Your task to perform on an android device: find photos in the google photos app Image 0: 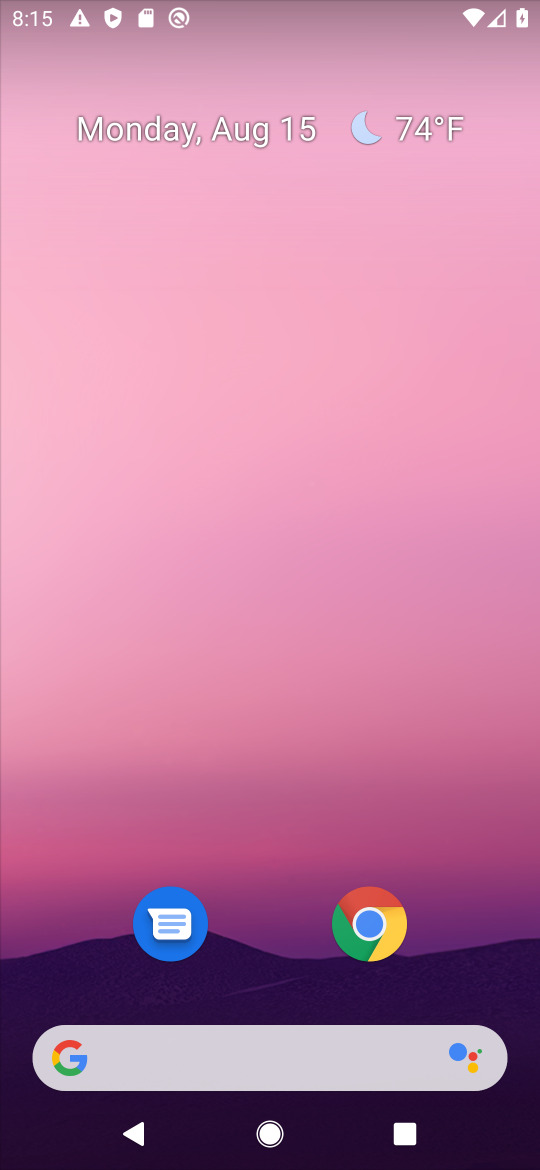
Step 0: drag from (507, 980) to (485, 225)
Your task to perform on an android device: find photos in the google photos app Image 1: 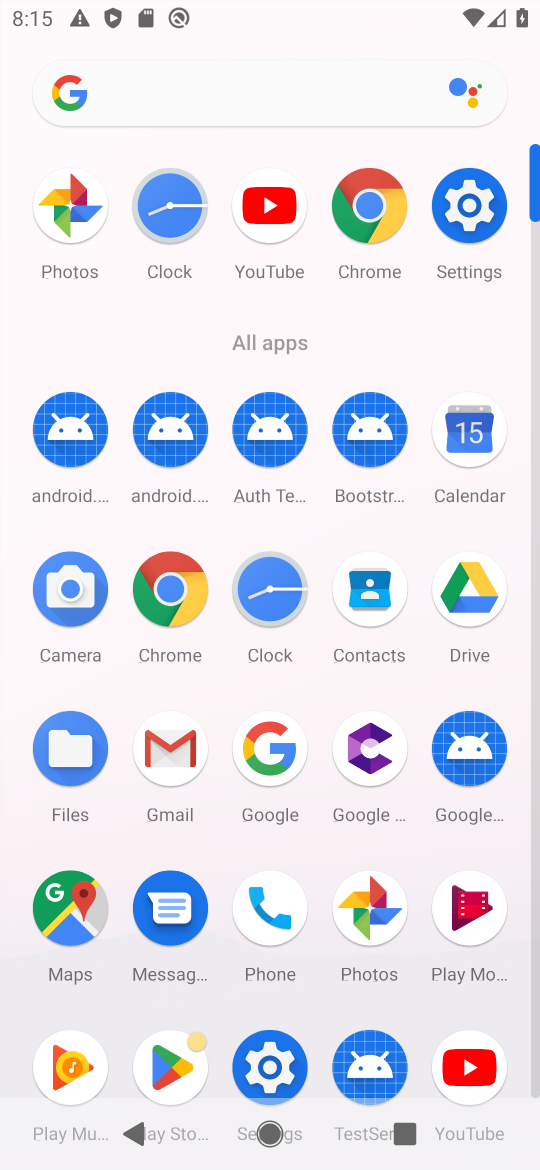
Step 1: click (367, 906)
Your task to perform on an android device: find photos in the google photos app Image 2: 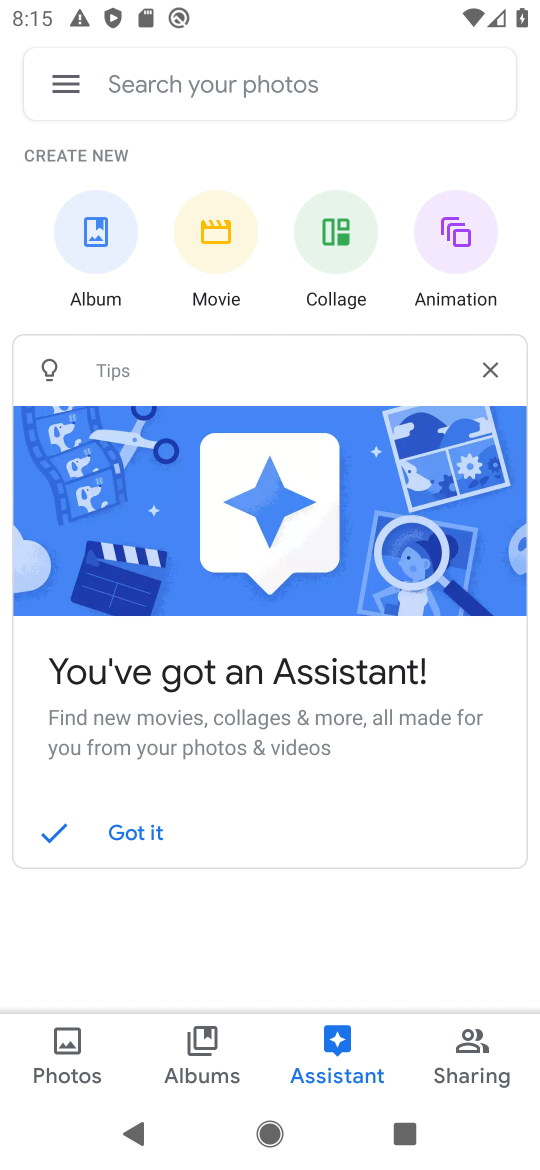
Step 2: click (67, 1066)
Your task to perform on an android device: find photos in the google photos app Image 3: 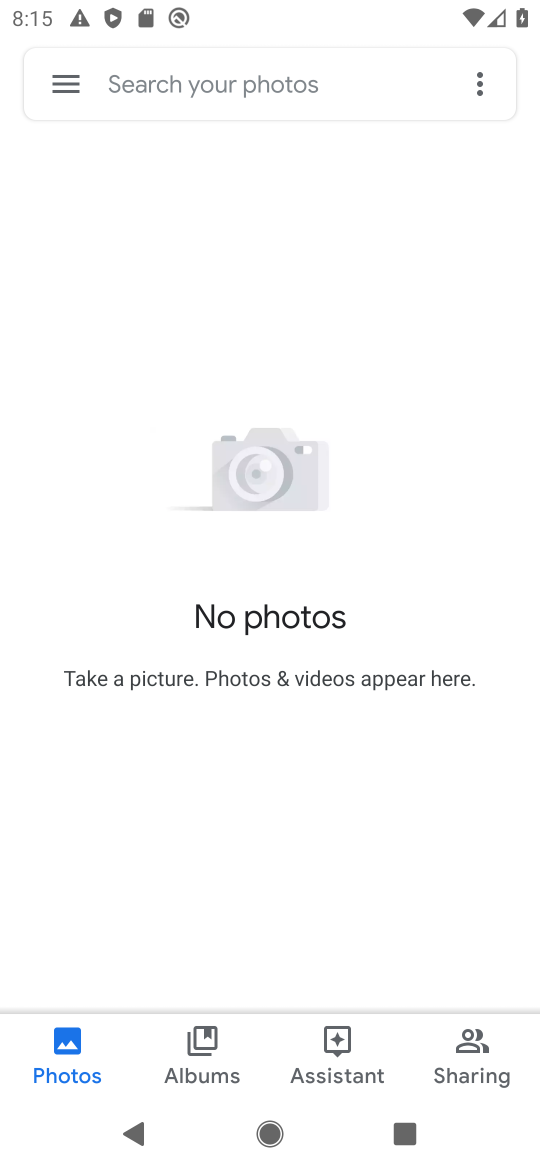
Step 3: task complete